Your task to perform on an android device: empty trash in google photos Image 0: 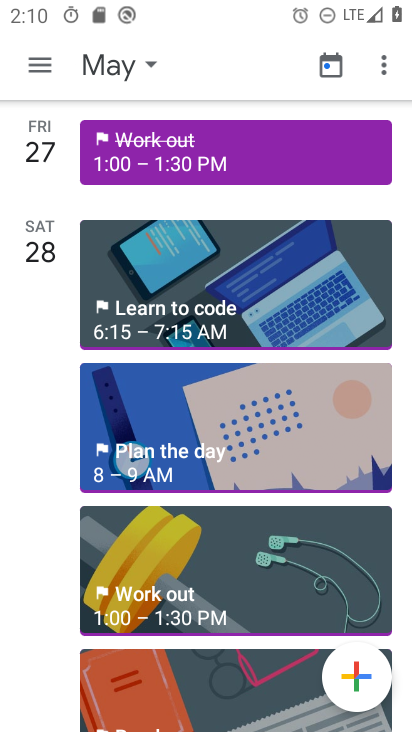
Step 0: press home button
Your task to perform on an android device: empty trash in google photos Image 1: 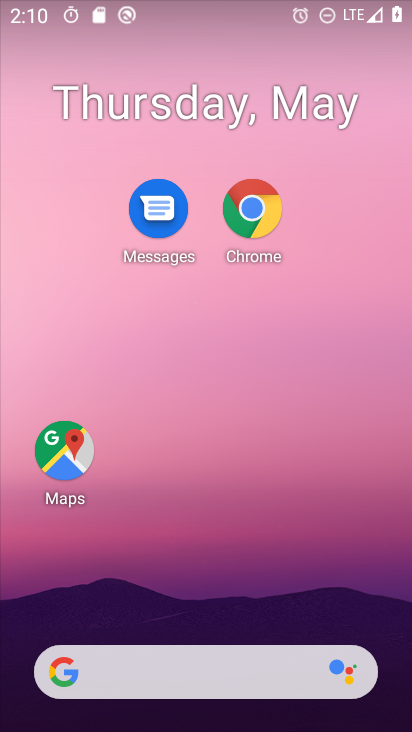
Step 1: drag from (209, 583) to (177, 2)
Your task to perform on an android device: empty trash in google photos Image 2: 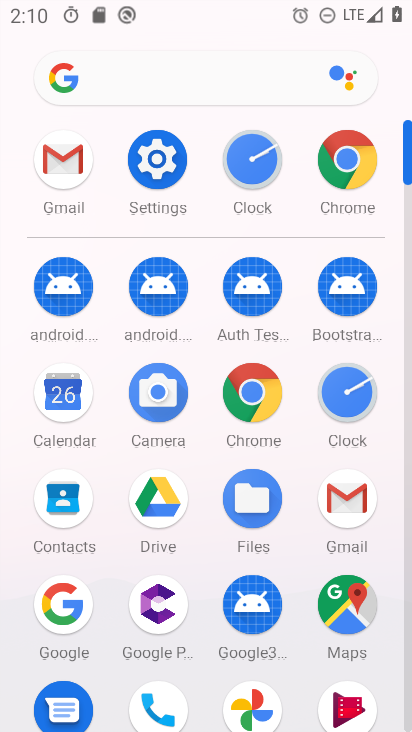
Step 2: click (244, 720)
Your task to perform on an android device: empty trash in google photos Image 3: 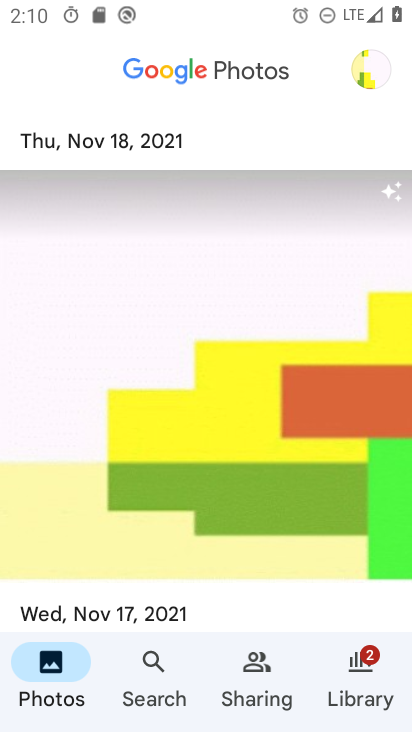
Step 3: click (353, 671)
Your task to perform on an android device: empty trash in google photos Image 4: 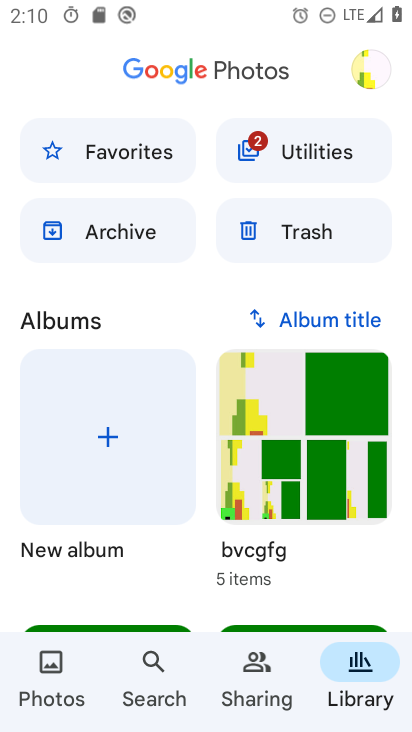
Step 4: click (304, 231)
Your task to perform on an android device: empty trash in google photos Image 5: 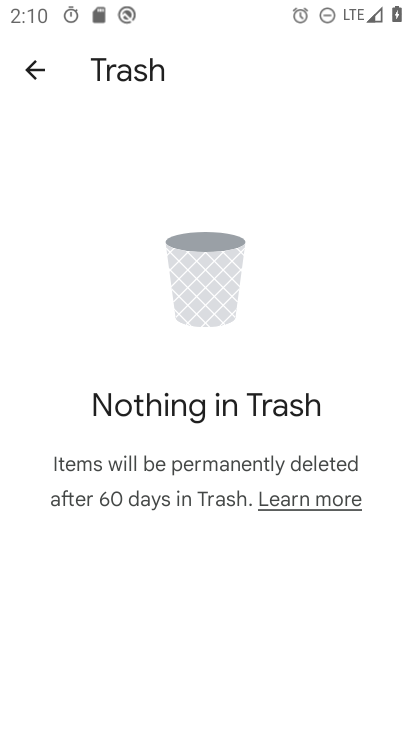
Step 5: task complete